Your task to perform on an android device: Show me popular videos on Youtube Image 0: 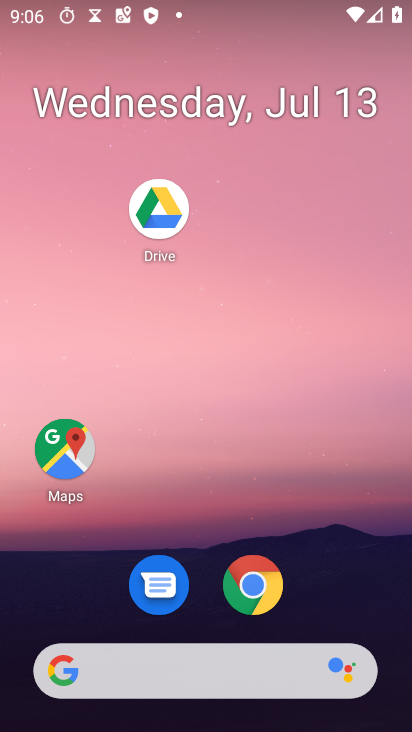
Step 0: drag from (258, 678) to (351, 189)
Your task to perform on an android device: Show me popular videos on Youtube Image 1: 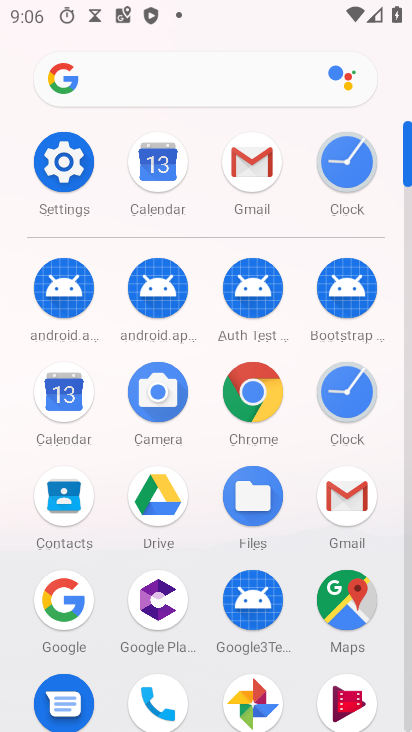
Step 1: drag from (285, 664) to (342, 325)
Your task to perform on an android device: Show me popular videos on Youtube Image 2: 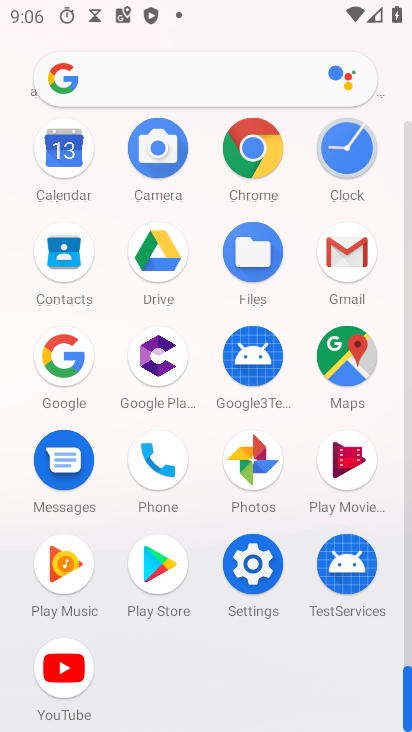
Step 2: click (63, 670)
Your task to perform on an android device: Show me popular videos on Youtube Image 3: 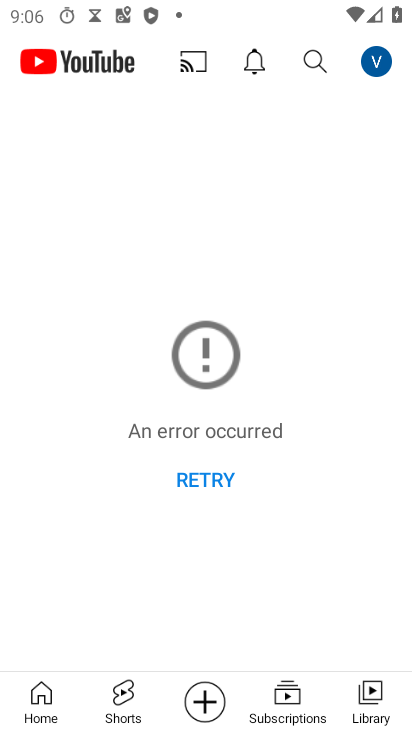
Step 3: click (201, 474)
Your task to perform on an android device: Show me popular videos on Youtube Image 4: 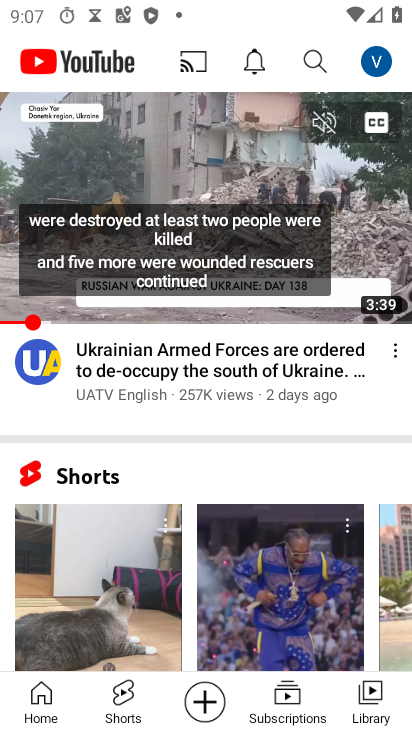
Step 4: task complete